Your task to perform on an android device: open chrome privacy settings Image 0: 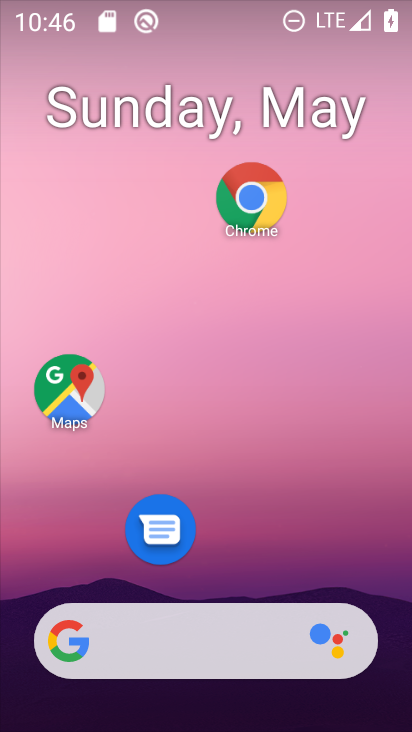
Step 0: click (251, 196)
Your task to perform on an android device: open chrome privacy settings Image 1: 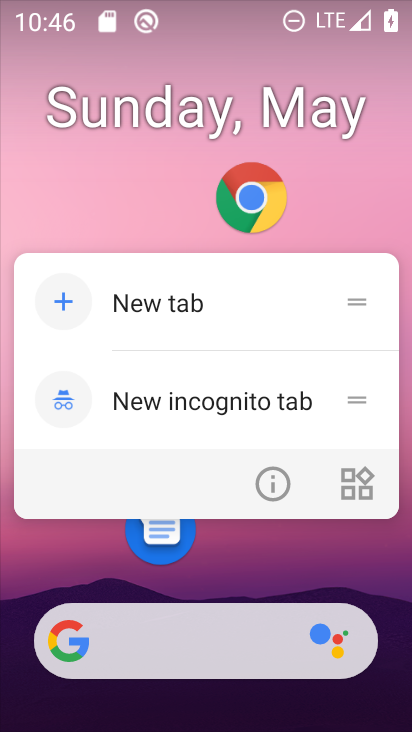
Step 1: click (251, 196)
Your task to perform on an android device: open chrome privacy settings Image 2: 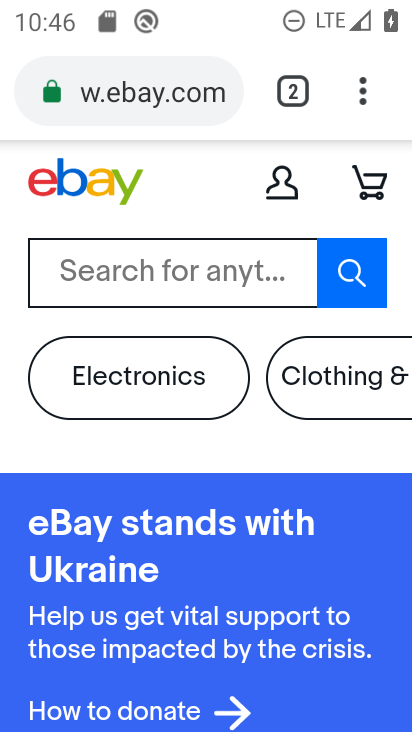
Step 2: click (361, 93)
Your task to perform on an android device: open chrome privacy settings Image 3: 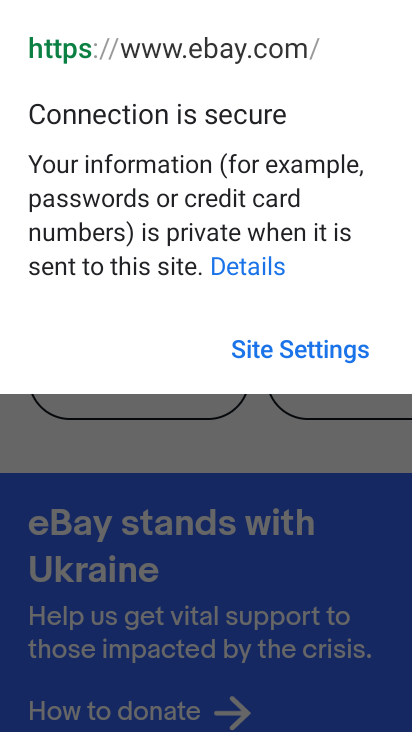
Step 3: click (286, 430)
Your task to perform on an android device: open chrome privacy settings Image 4: 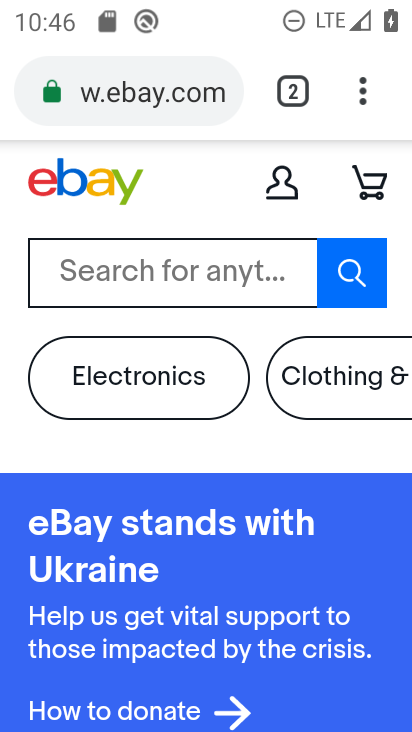
Step 4: click (362, 79)
Your task to perform on an android device: open chrome privacy settings Image 5: 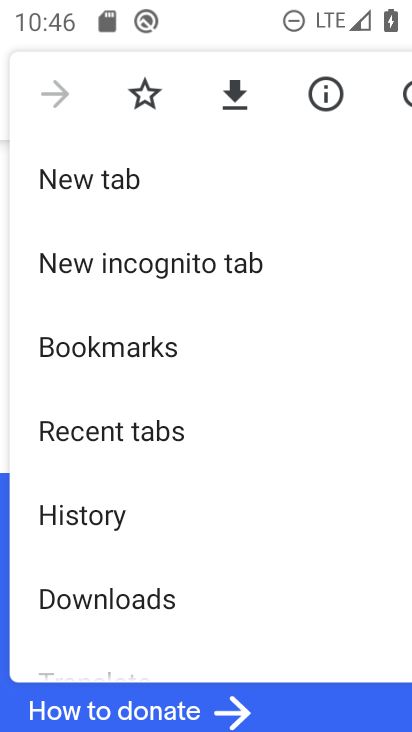
Step 5: drag from (166, 579) to (239, 265)
Your task to perform on an android device: open chrome privacy settings Image 6: 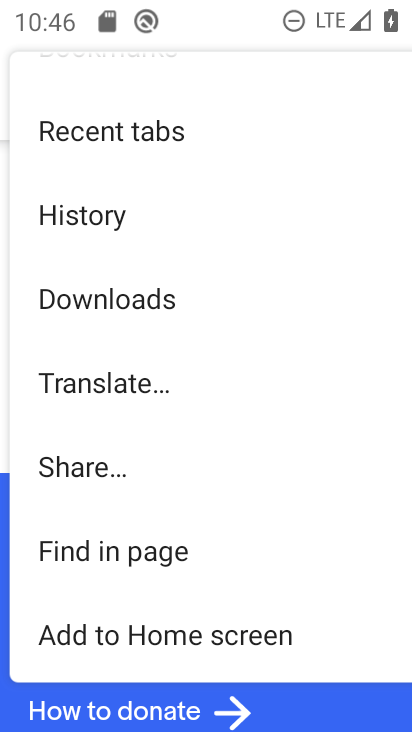
Step 6: drag from (204, 575) to (209, 290)
Your task to perform on an android device: open chrome privacy settings Image 7: 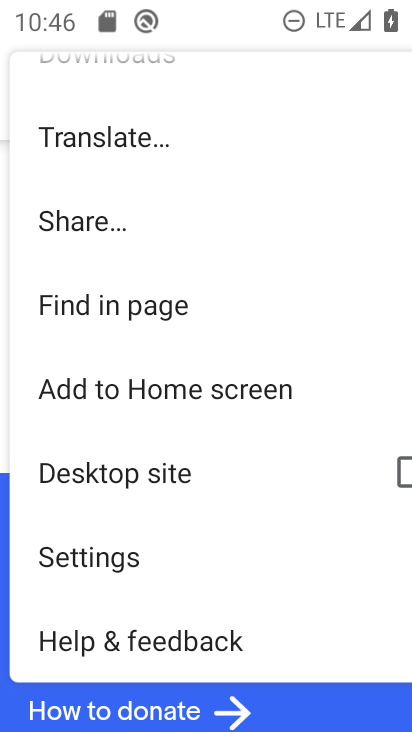
Step 7: click (185, 562)
Your task to perform on an android device: open chrome privacy settings Image 8: 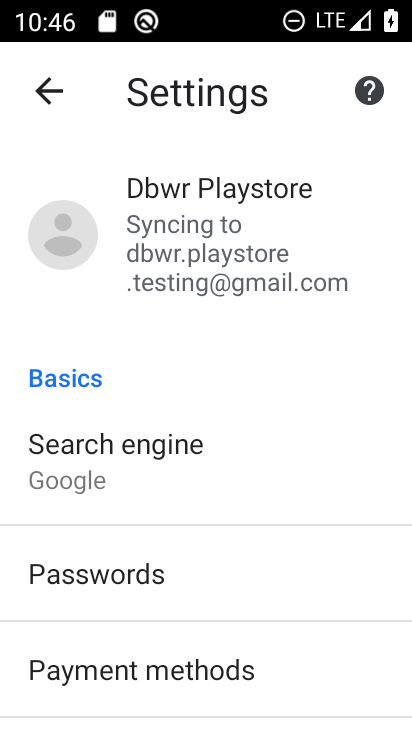
Step 8: drag from (211, 669) to (224, 423)
Your task to perform on an android device: open chrome privacy settings Image 9: 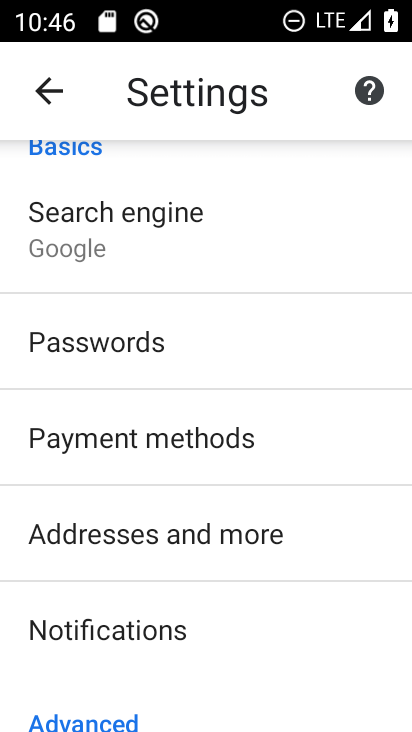
Step 9: drag from (243, 639) to (272, 405)
Your task to perform on an android device: open chrome privacy settings Image 10: 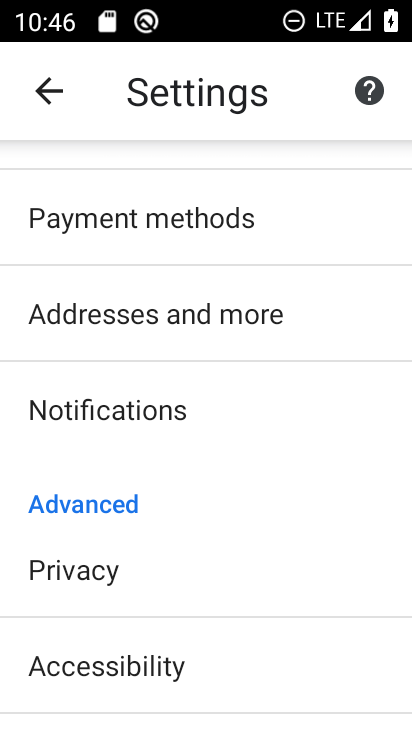
Step 10: drag from (181, 673) to (250, 382)
Your task to perform on an android device: open chrome privacy settings Image 11: 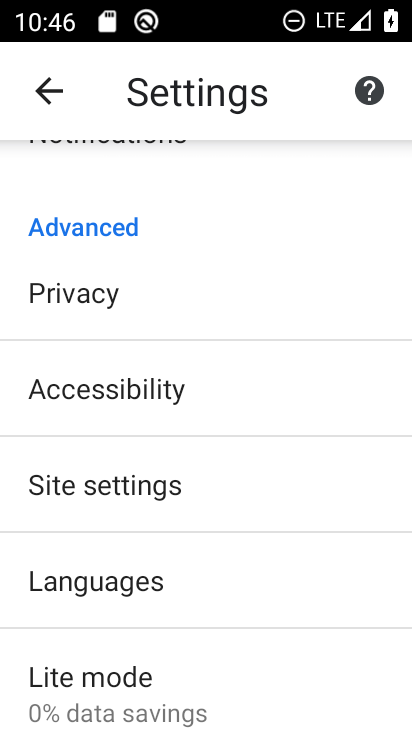
Step 11: click (125, 307)
Your task to perform on an android device: open chrome privacy settings Image 12: 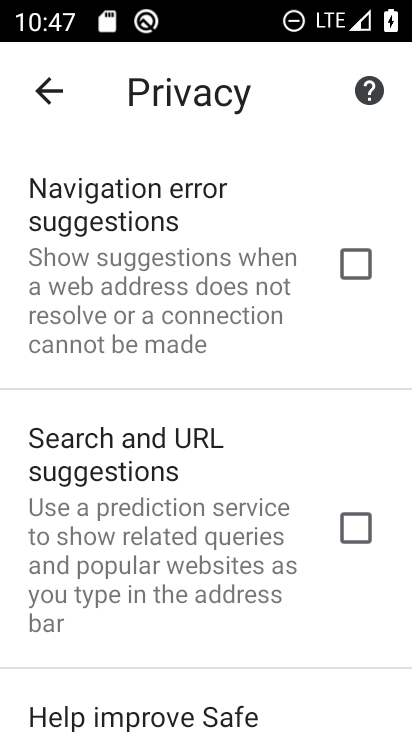
Step 12: task complete